Your task to perform on an android device: turn off notifications in google photos Image 0: 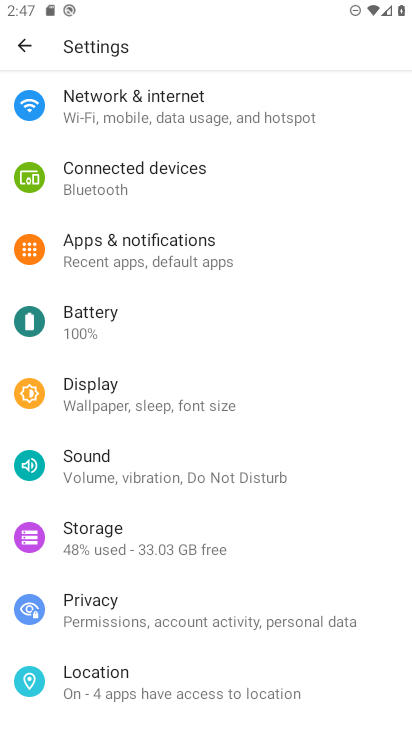
Step 0: press back button
Your task to perform on an android device: turn off notifications in google photos Image 1: 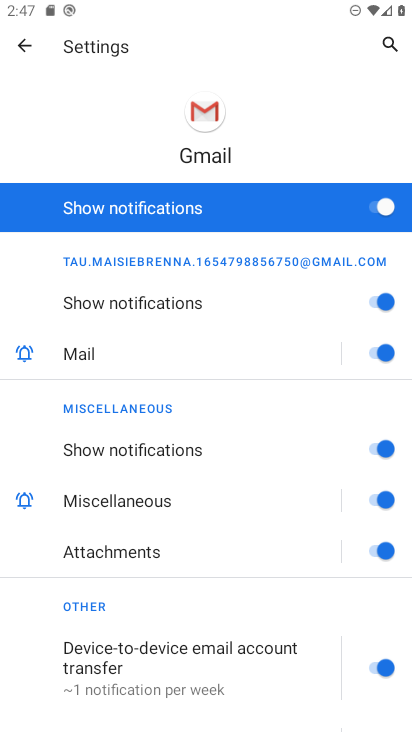
Step 1: press back button
Your task to perform on an android device: turn off notifications in google photos Image 2: 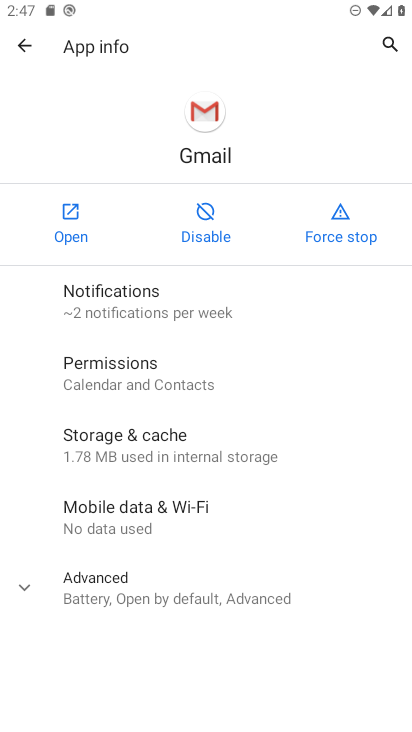
Step 2: press back button
Your task to perform on an android device: turn off notifications in google photos Image 3: 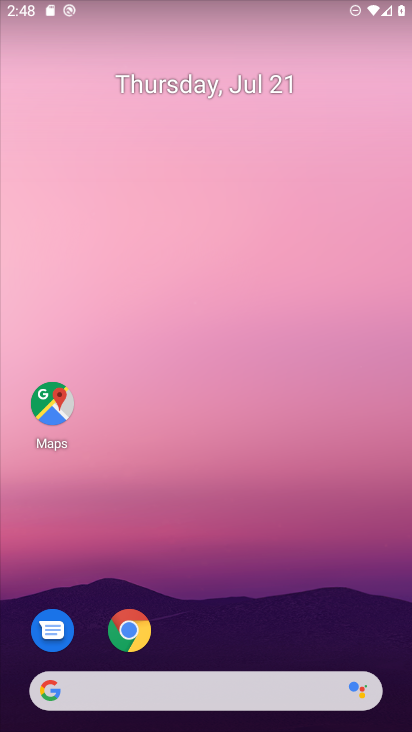
Step 3: drag from (182, 643) to (294, 62)
Your task to perform on an android device: turn off notifications in google photos Image 4: 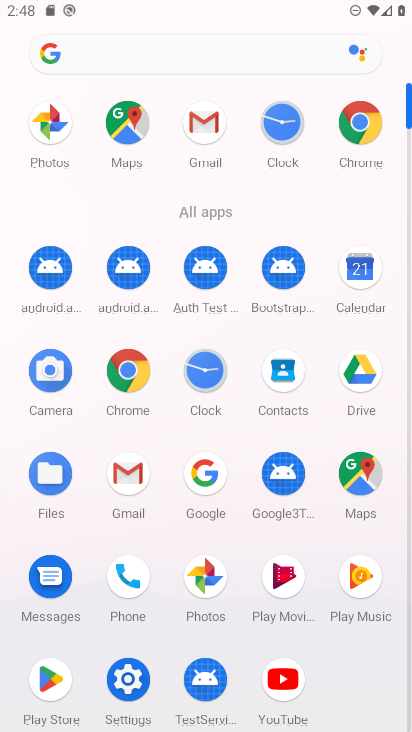
Step 4: click (221, 577)
Your task to perform on an android device: turn off notifications in google photos Image 5: 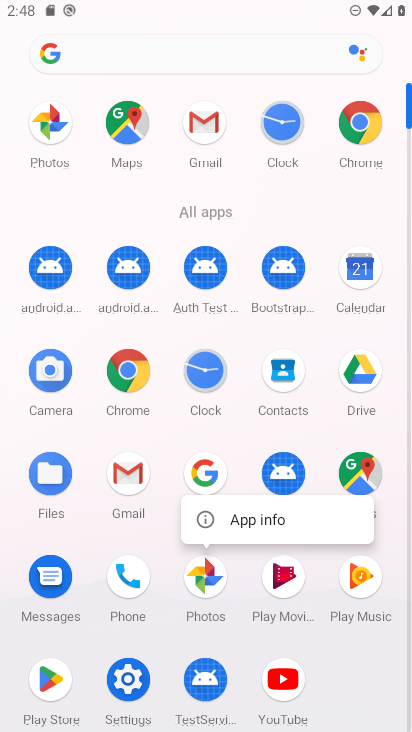
Step 5: click (216, 516)
Your task to perform on an android device: turn off notifications in google photos Image 6: 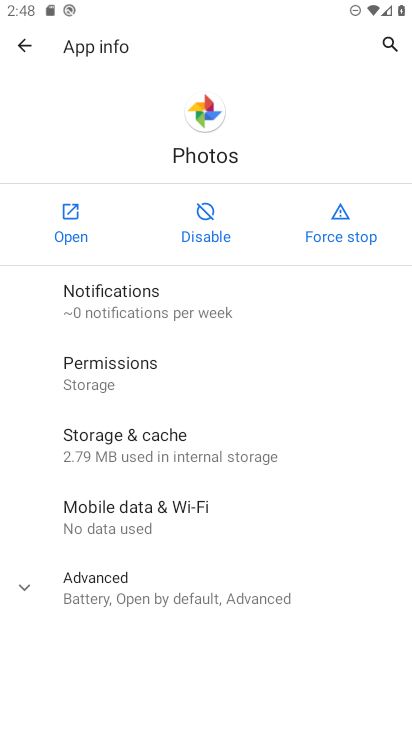
Step 6: click (154, 289)
Your task to perform on an android device: turn off notifications in google photos Image 7: 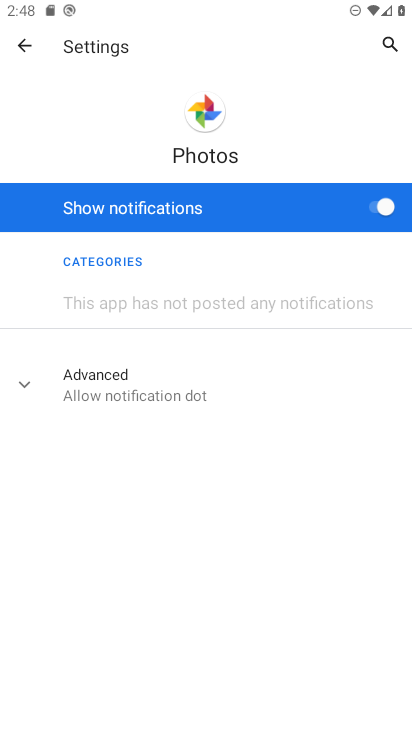
Step 7: click (387, 206)
Your task to perform on an android device: turn off notifications in google photos Image 8: 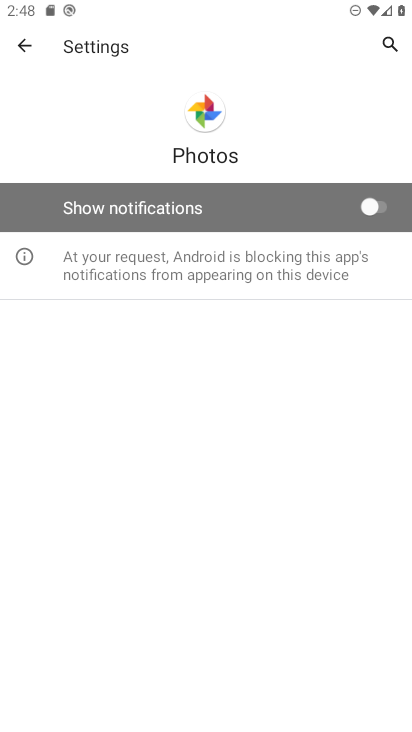
Step 8: task complete